Your task to perform on an android device: Search for the new Jordans on Nike.com Image 0: 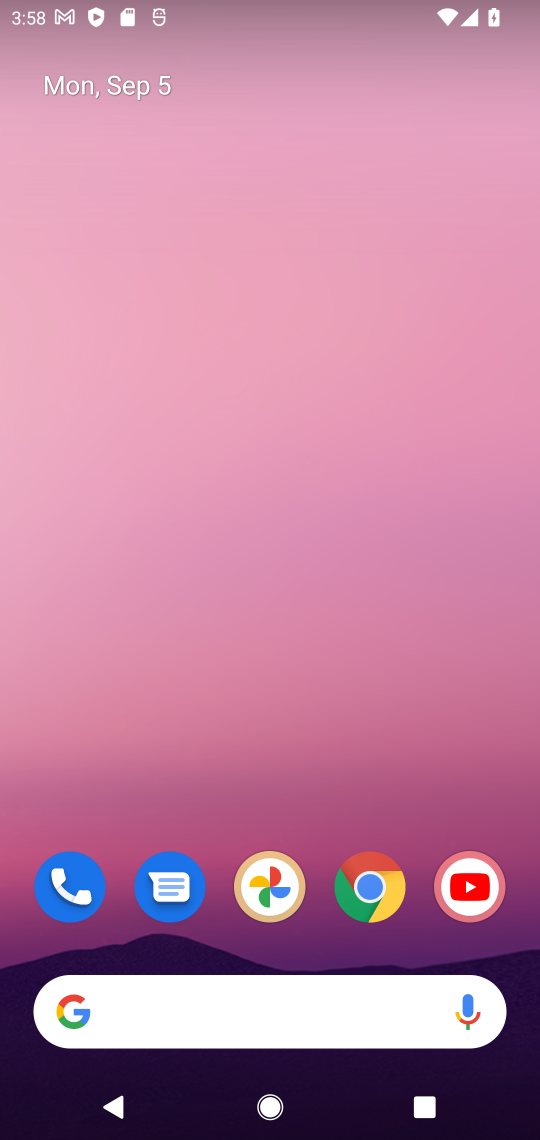
Step 0: drag from (127, 729) to (260, 17)
Your task to perform on an android device: Search for the new Jordans on Nike.com Image 1: 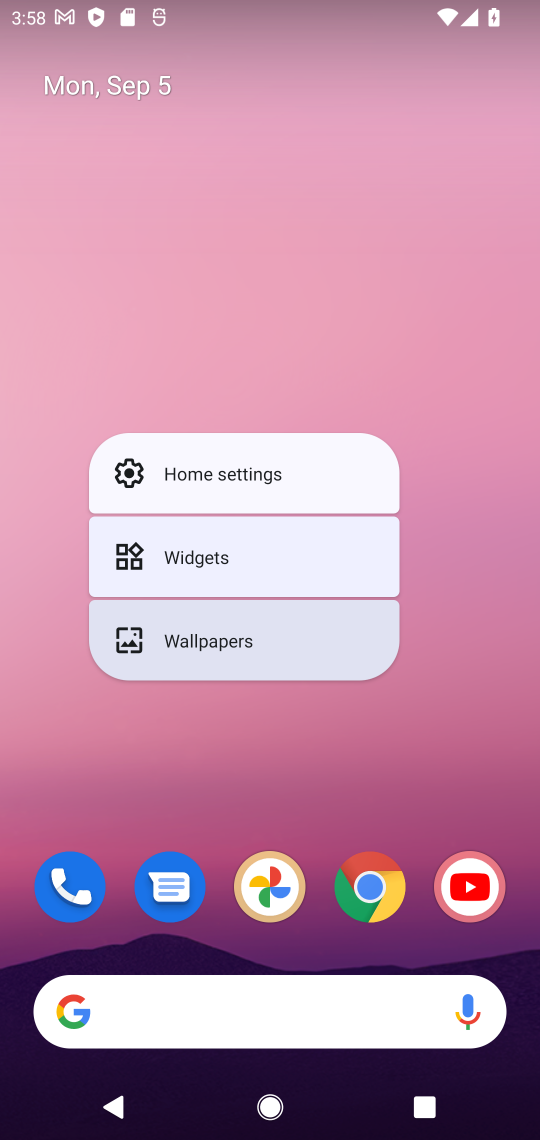
Step 1: click (497, 471)
Your task to perform on an android device: Search for the new Jordans on Nike.com Image 2: 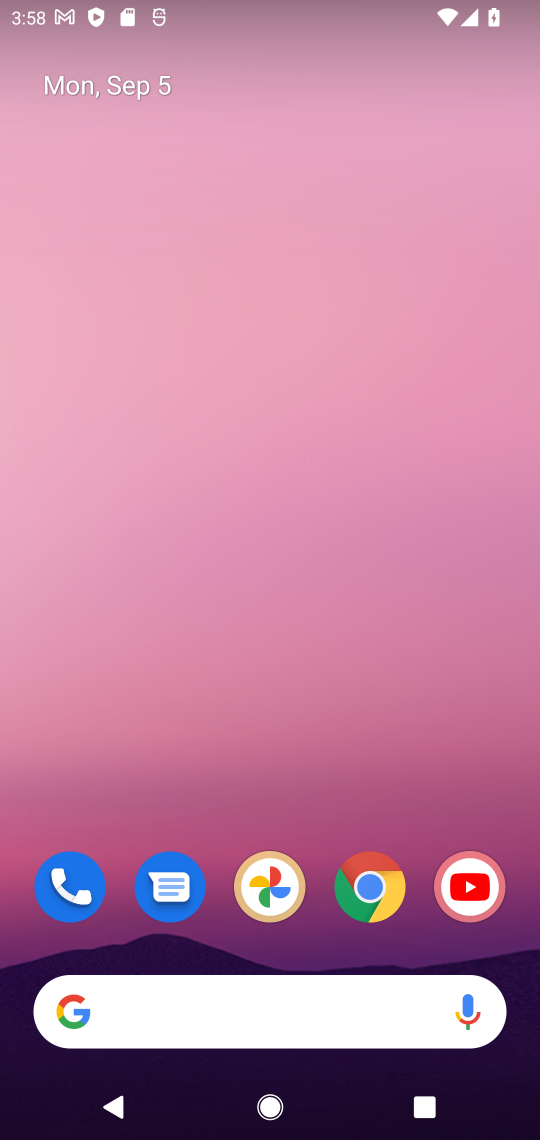
Step 2: drag from (299, 815) to (404, 705)
Your task to perform on an android device: Search for the new Jordans on Nike.com Image 3: 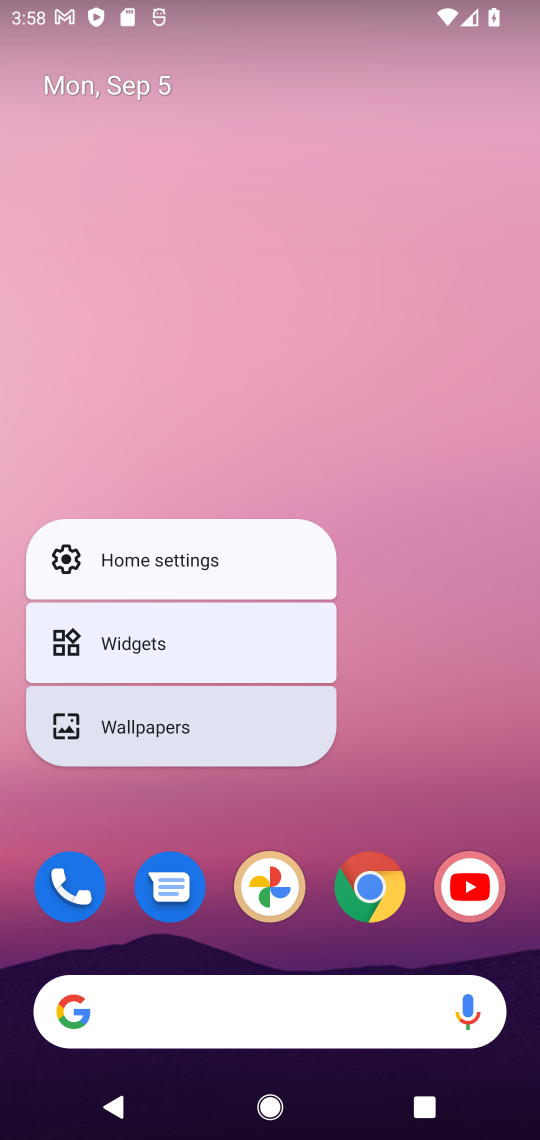
Step 3: click (305, 950)
Your task to perform on an android device: Search for the new Jordans on Nike.com Image 4: 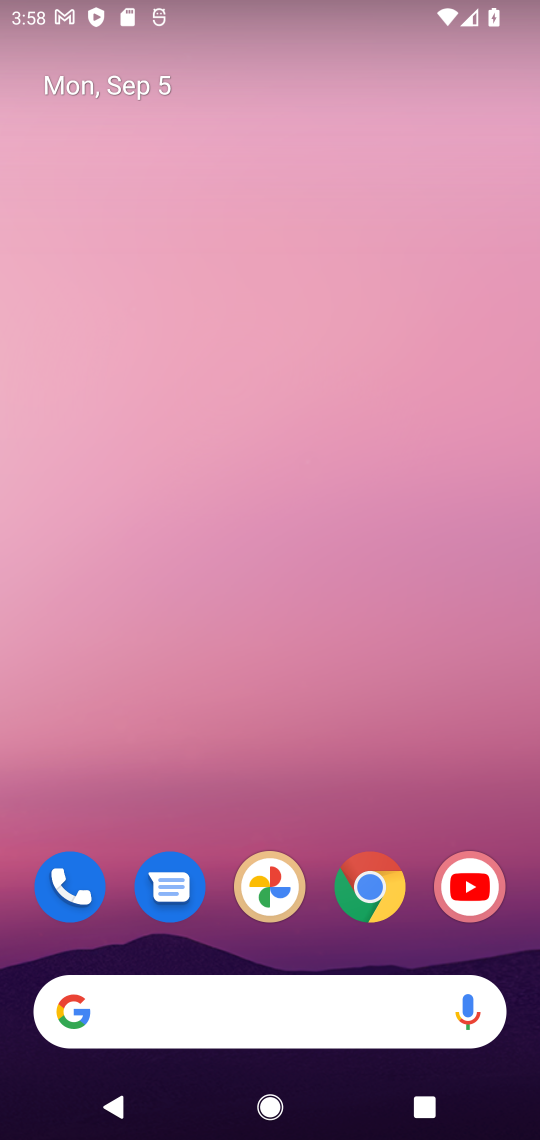
Step 4: drag from (301, 963) to (333, 128)
Your task to perform on an android device: Search for the new Jordans on Nike.com Image 5: 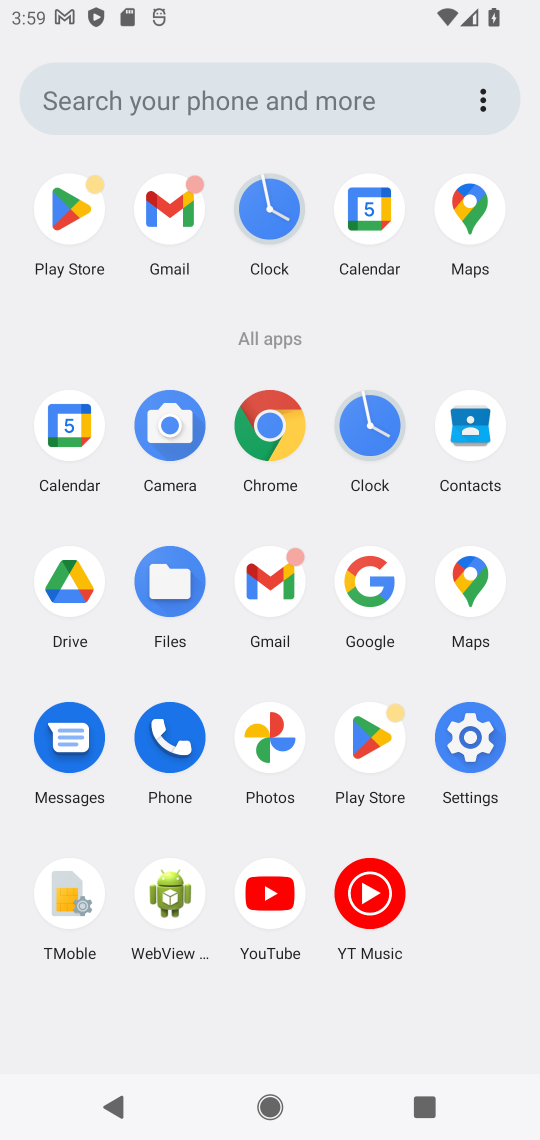
Step 5: click (260, 420)
Your task to perform on an android device: Search for the new Jordans on Nike.com Image 6: 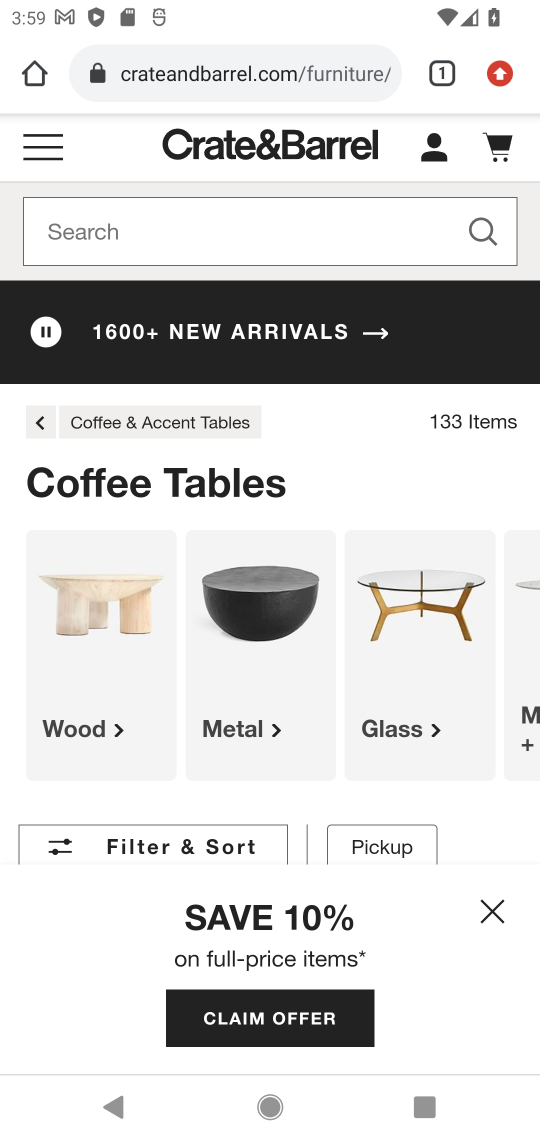
Step 6: click (267, 83)
Your task to perform on an android device: Search for the new Jordans on Nike.com Image 7: 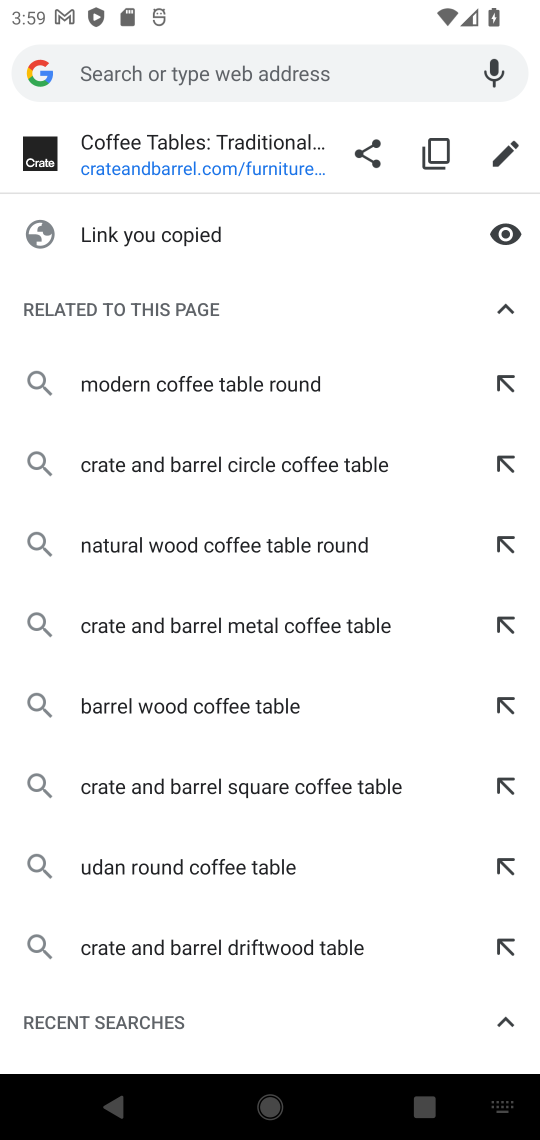
Step 7: type "new Jordans on Nike.com"
Your task to perform on an android device: Search for the new Jordans on Nike.com Image 8: 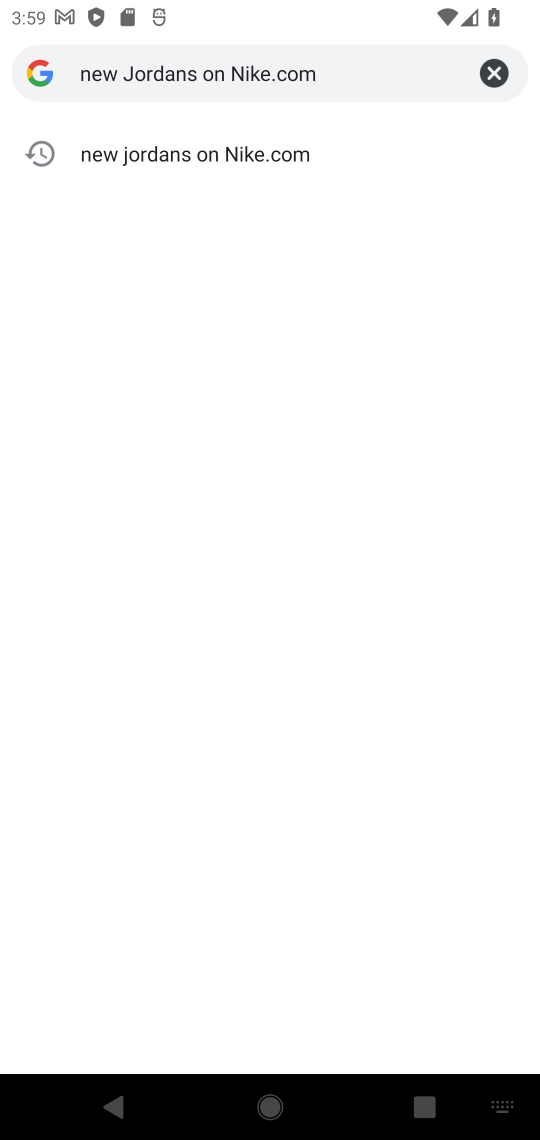
Step 8: press enter
Your task to perform on an android device: Search for the new Jordans on Nike.com Image 9: 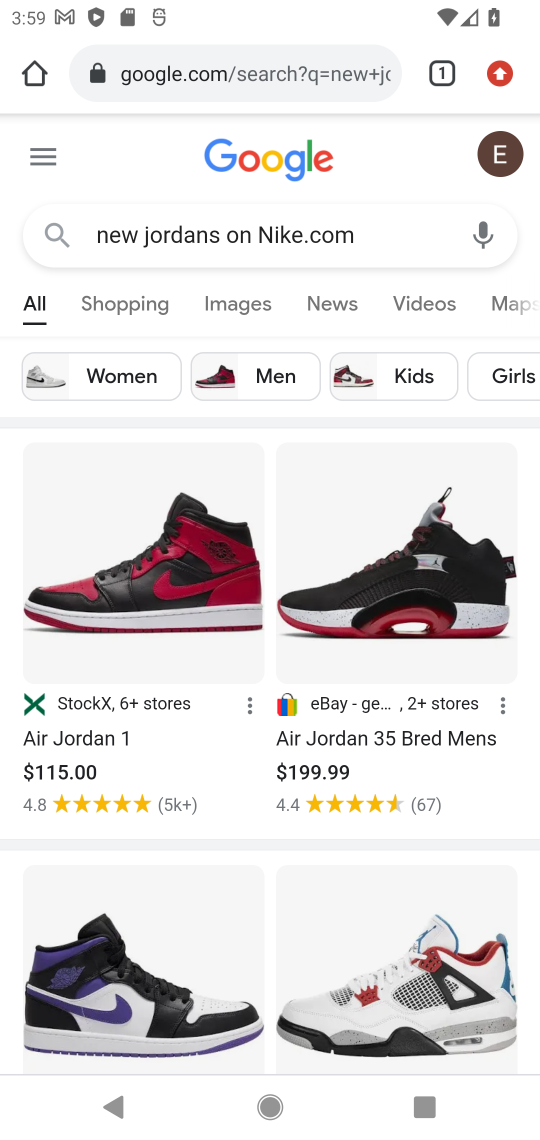
Step 9: task complete